Your task to perform on an android device: make emails show in primary in the gmail app Image 0: 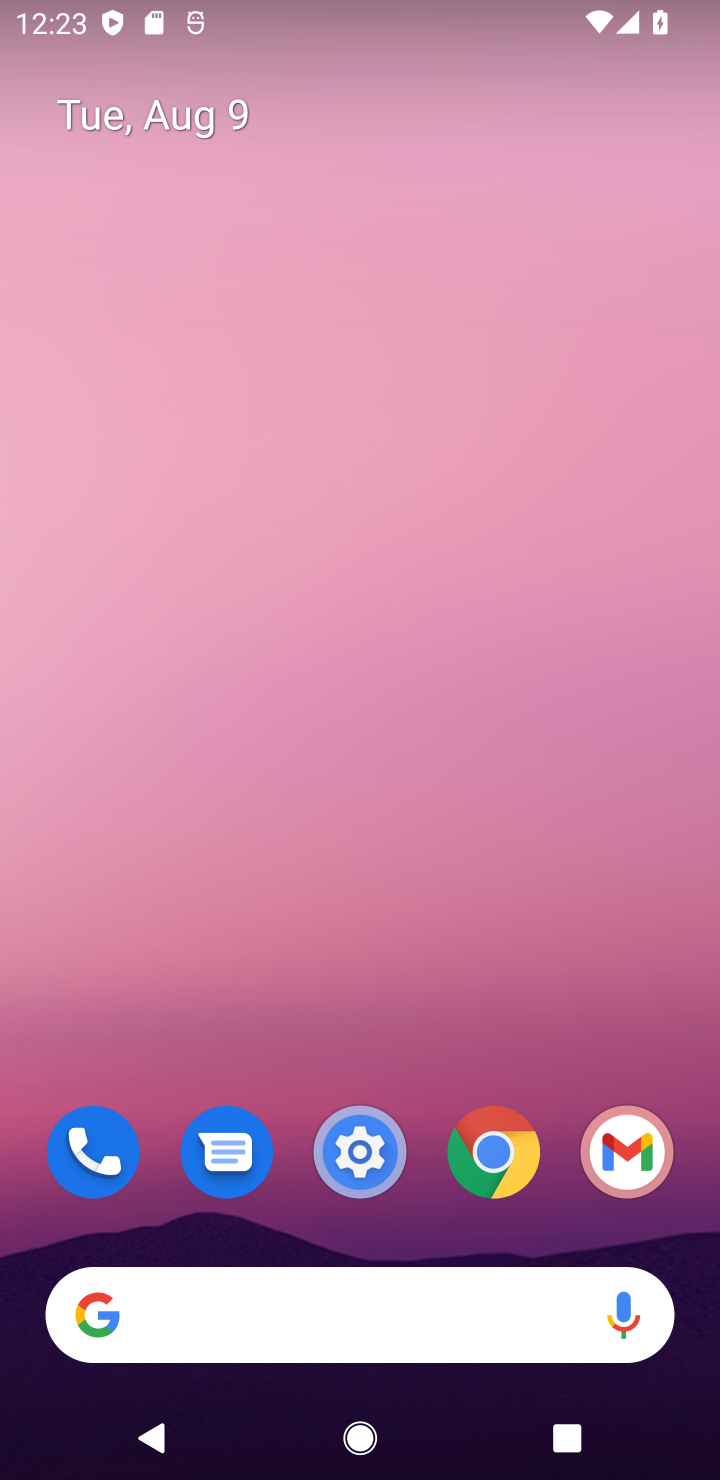
Step 0: press home button
Your task to perform on an android device: make emails show in primary in the gmail app Image 1: 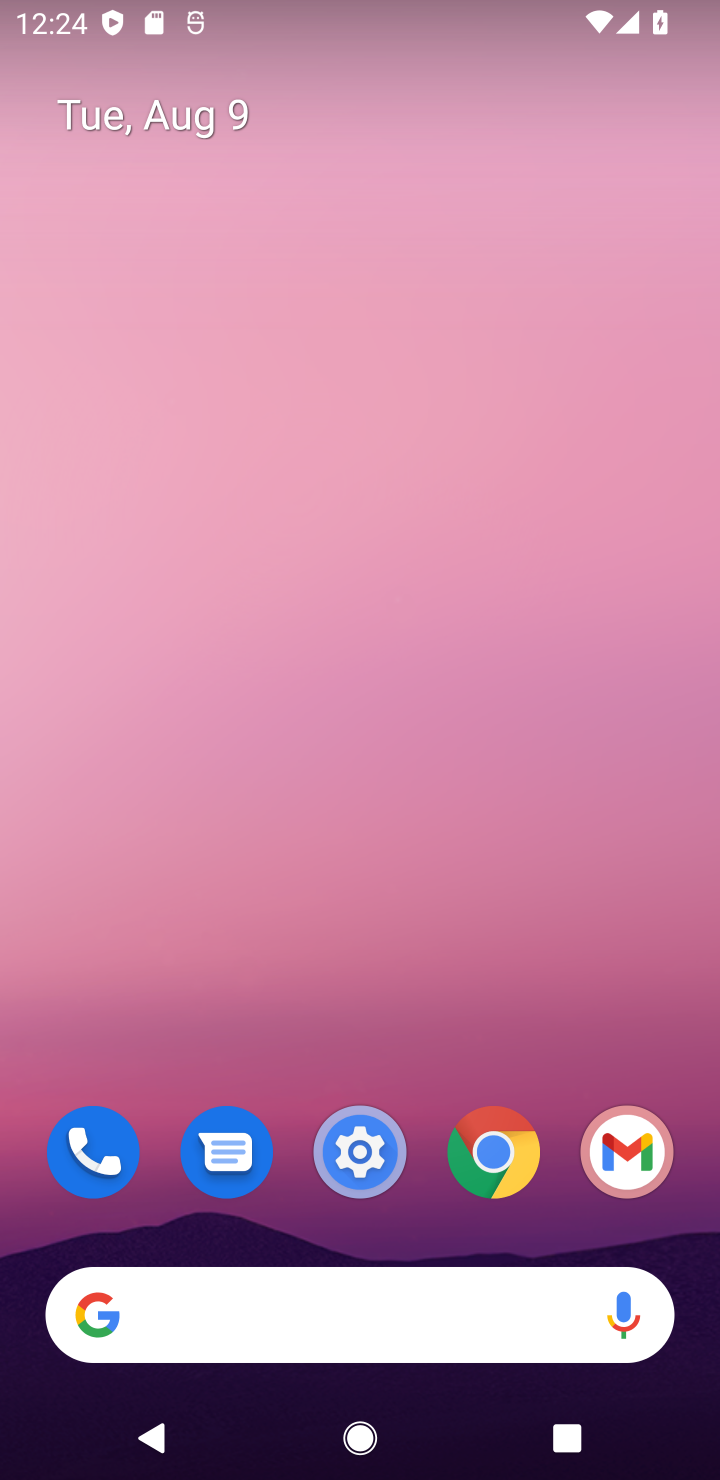
Step 1: drag from (414, 1068) to (396, 306)
Your task to perform on an android device: make emails show in primary in the gmail app Image 2: 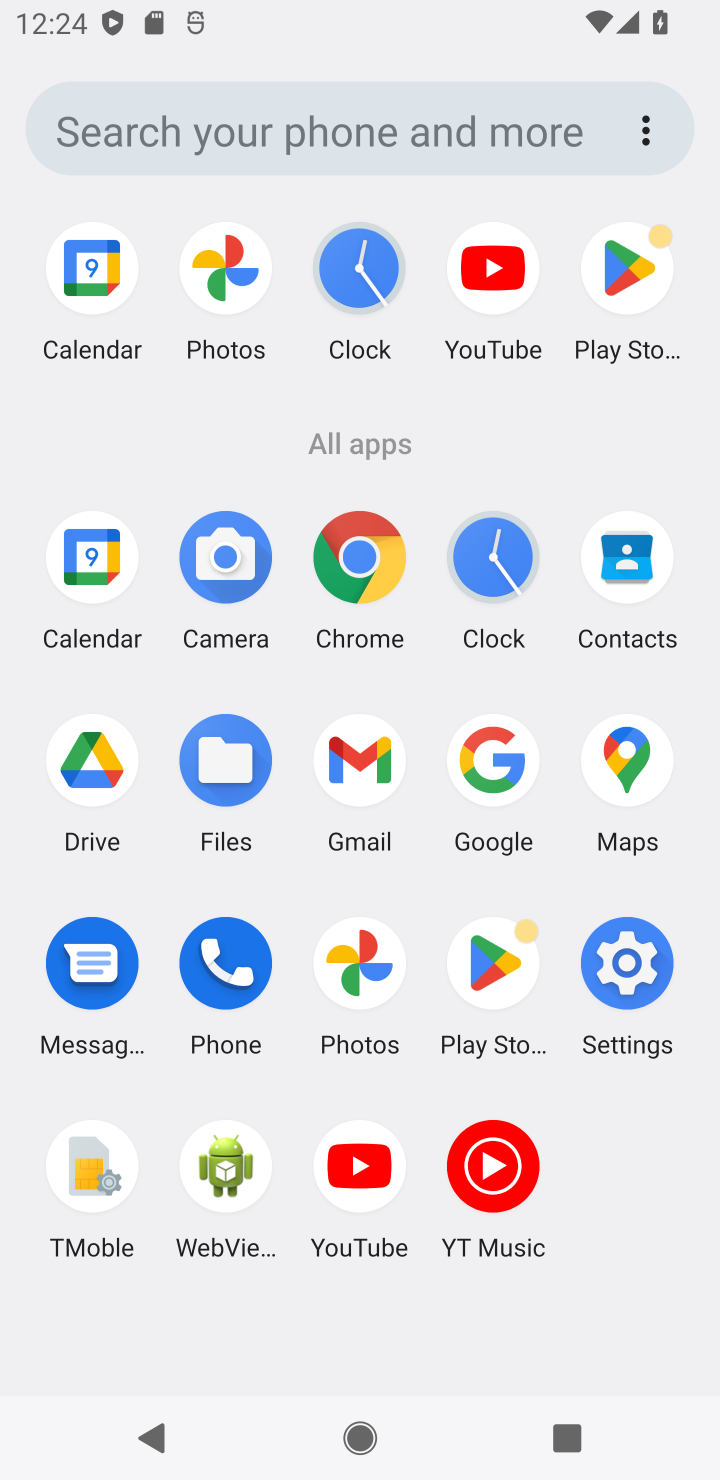
Step 2: click (367, 758)
Your task to perform on an android device: make emails show in primary in the gmail app Image 3: 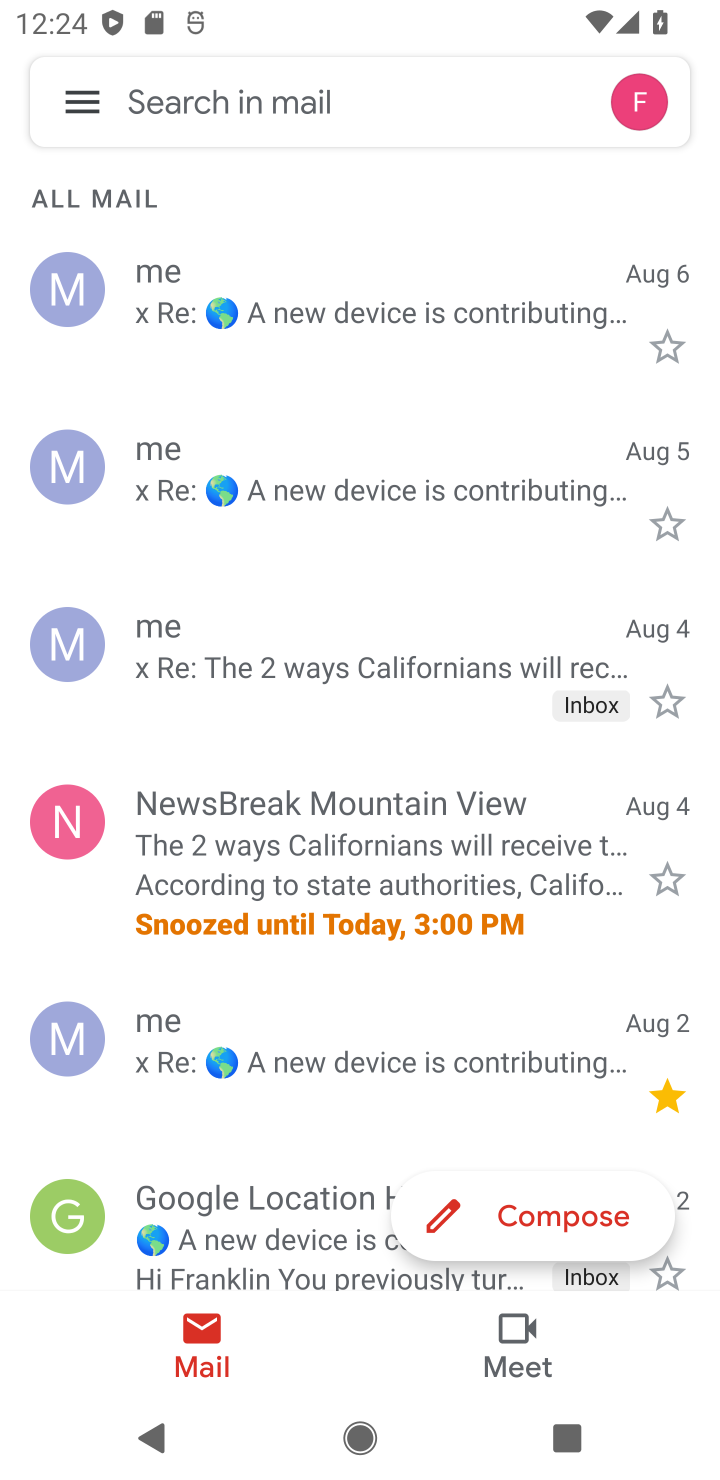
Step 3: click (70, 105)
Your task to perform on an android device: make emails show in primary in the gmail app Image 4: 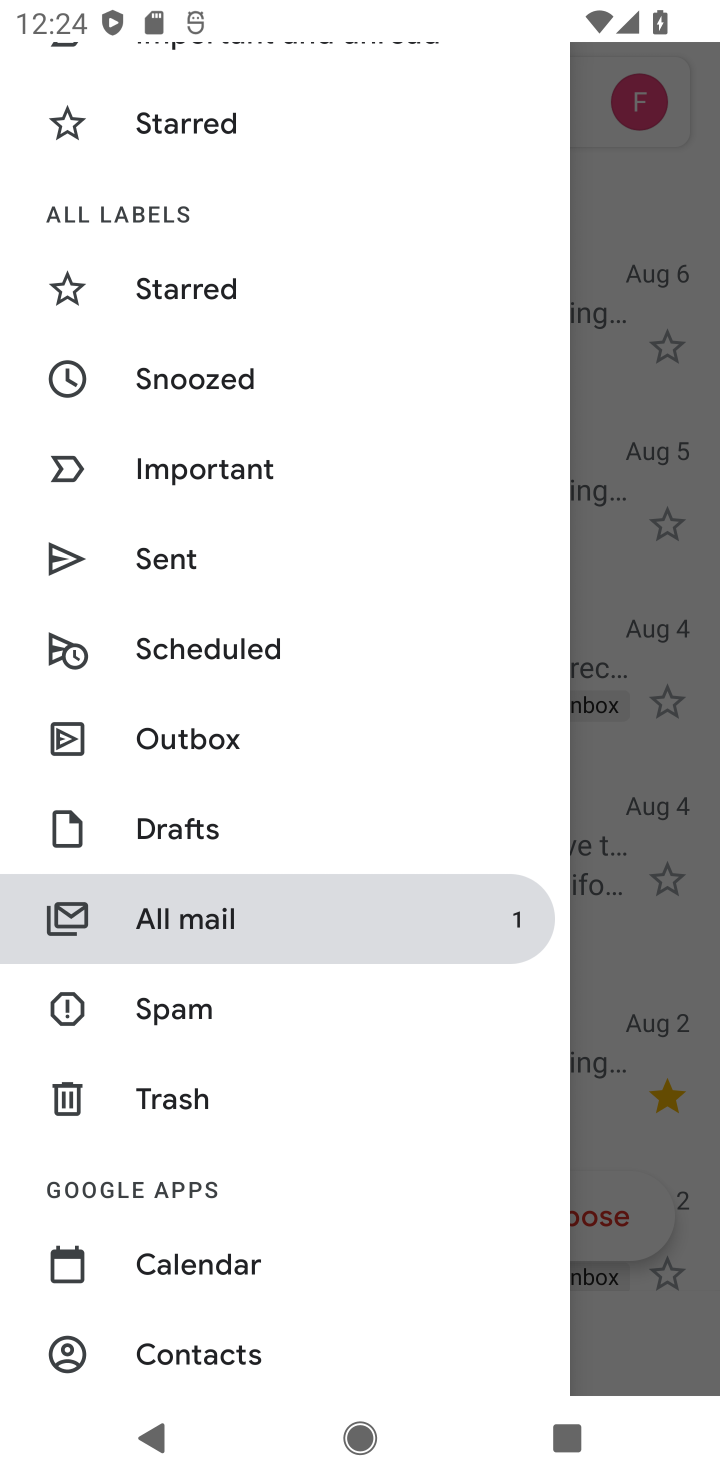
Step 4: drag from (370, 1267) to (357, 810)
Your task to perform on an android device: make emails show in primary in the gmail app Image 5: 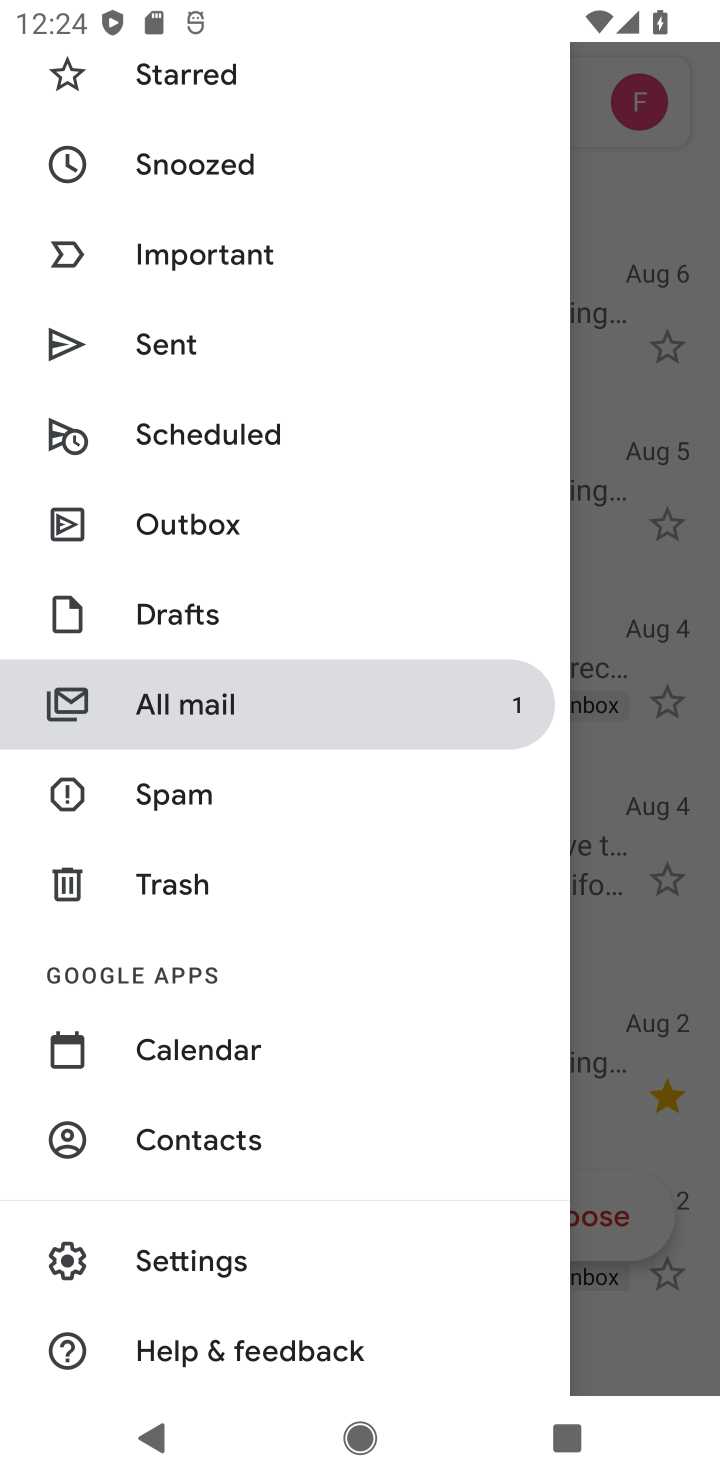
Step 5: click (218, 1262)
Your task to perform on an android device: make emails show in primary in the gmail app Image 6: 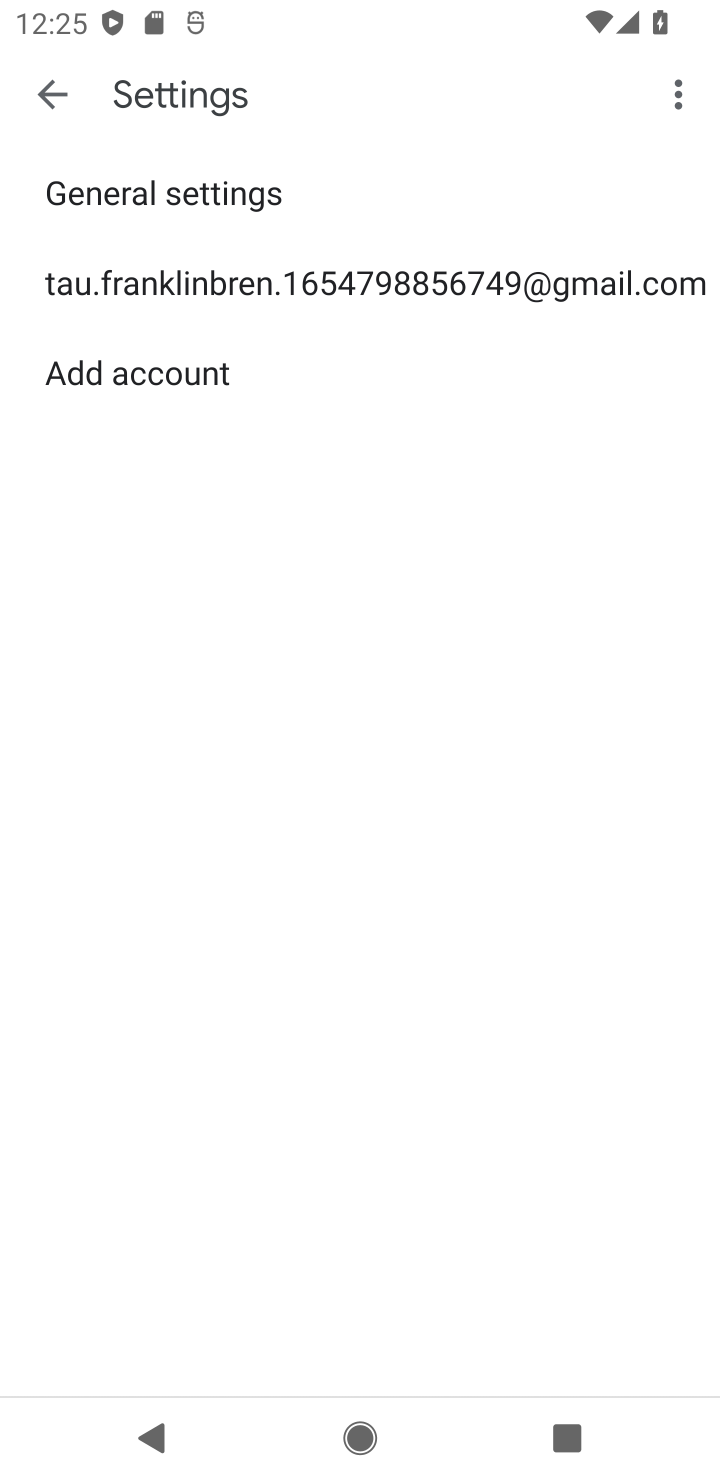
Step 6: click (226, 286)
Your task to perform on an android device: make emails show in primary in the gmail app Image 7: 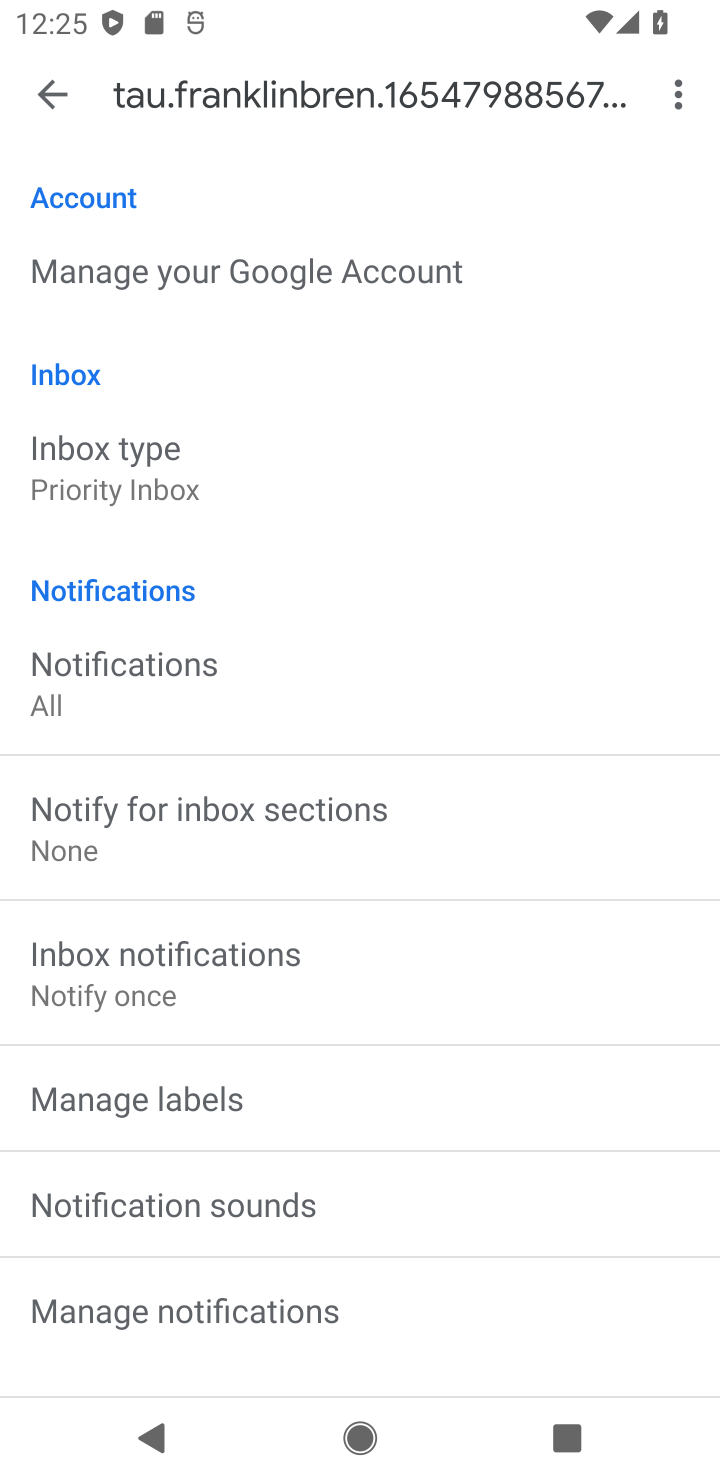
Step 7: click (166, 485)
Your task to perform on an android device: make emails show in primary in the gmail app Image 8: 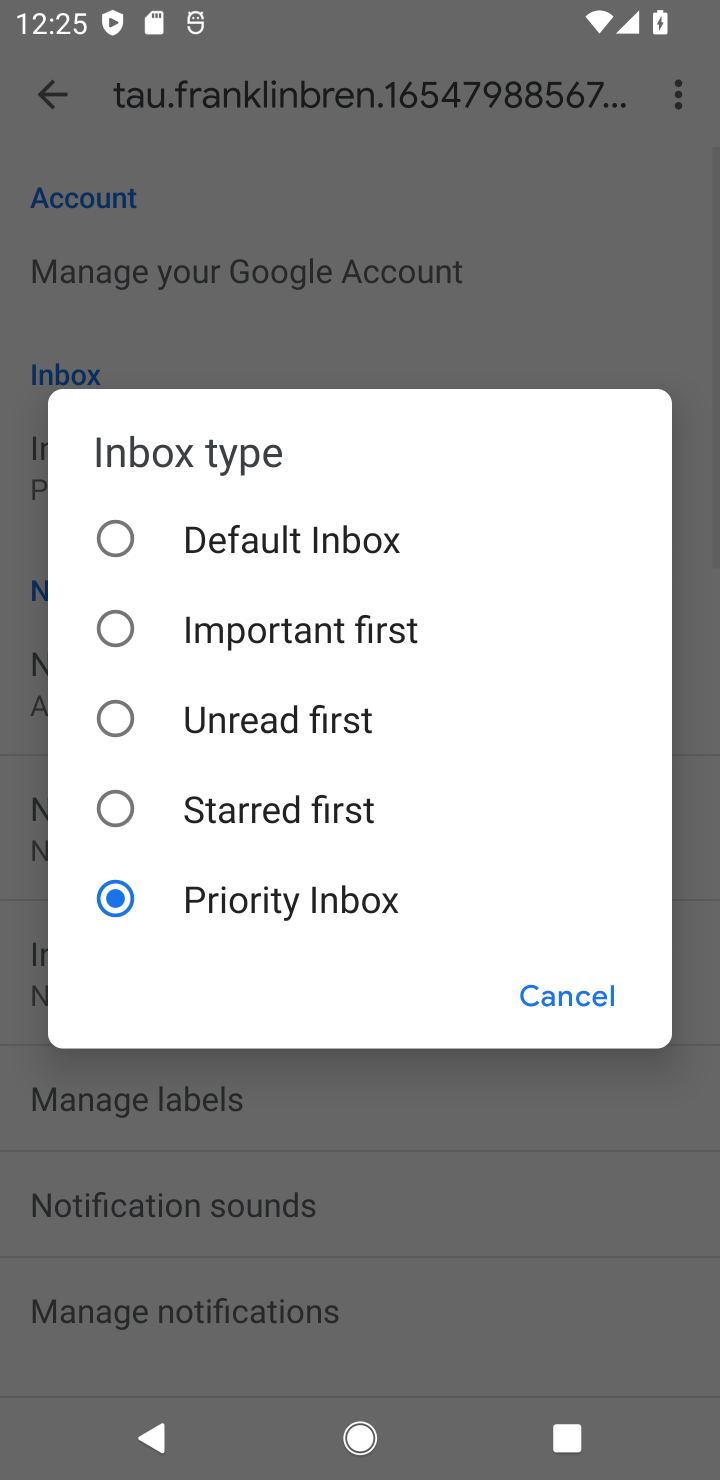
Step 8: click (206, 550)
Your task to perform on an android device: make emails show in primary in the gmail app Image 9: 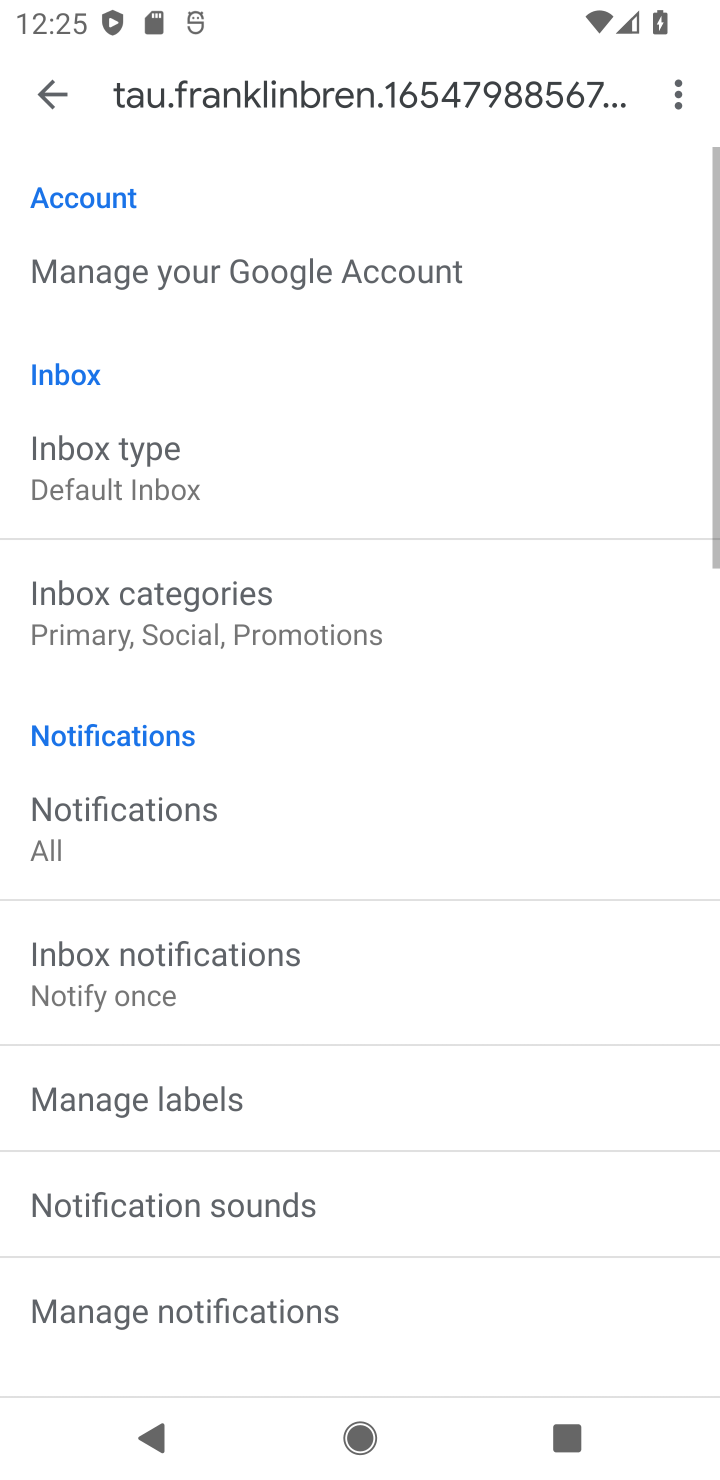
Step 9: click (166, 629)
Your task to perform on an android device: make emails show in primary in the gmail app Image 10: 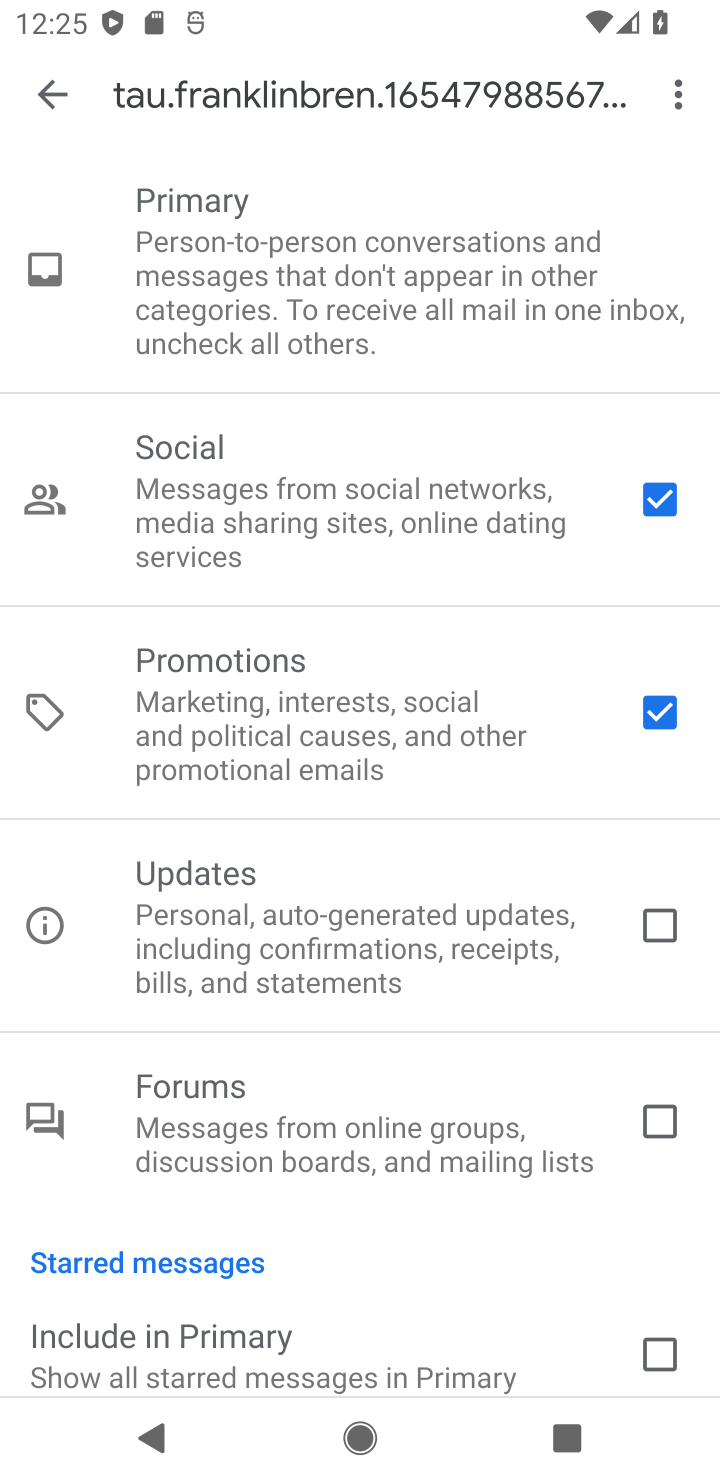
Step 10: click (658, 721)
Your task to perform on an android device: make emails show in primary in the gmail app Image 11: 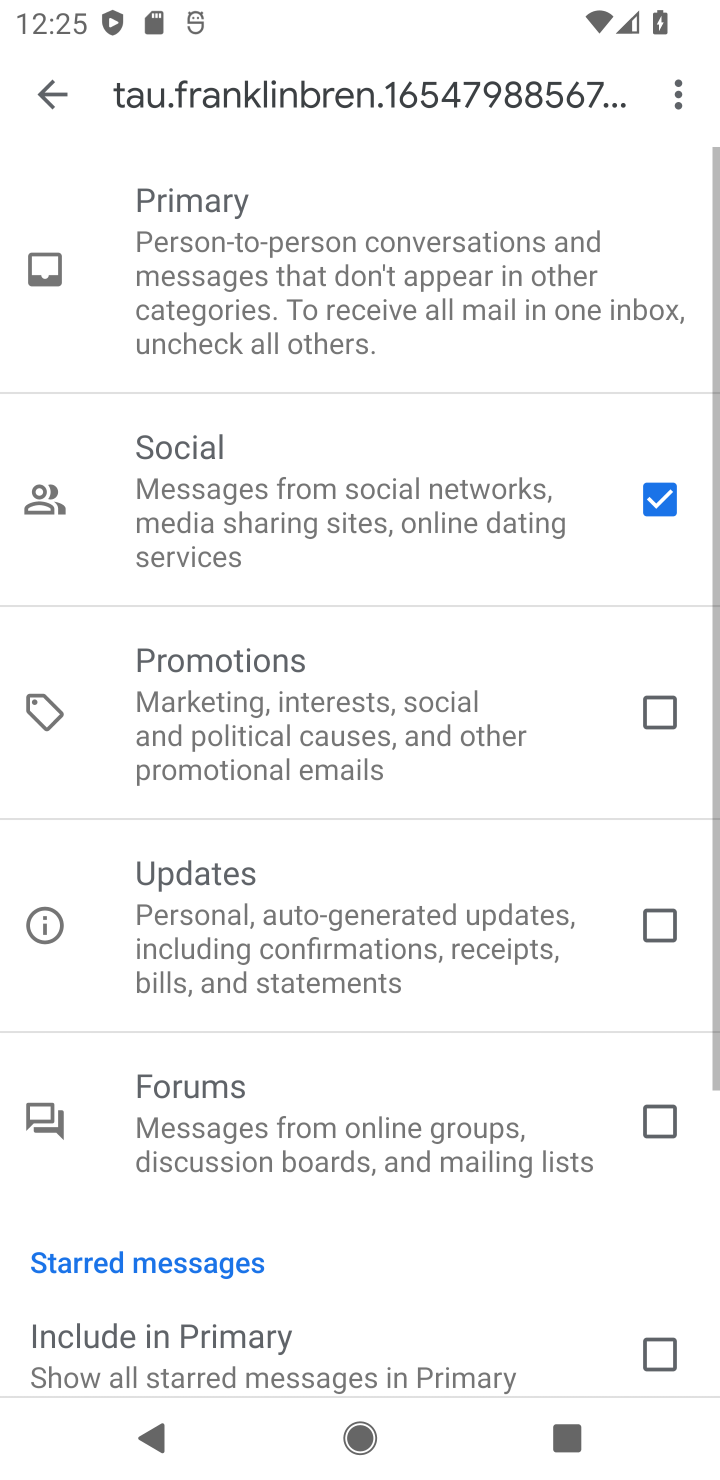
Step 11: click (662, 497)
Your task to perform on an android device: make emails show in primary in the gmail app Image 12: 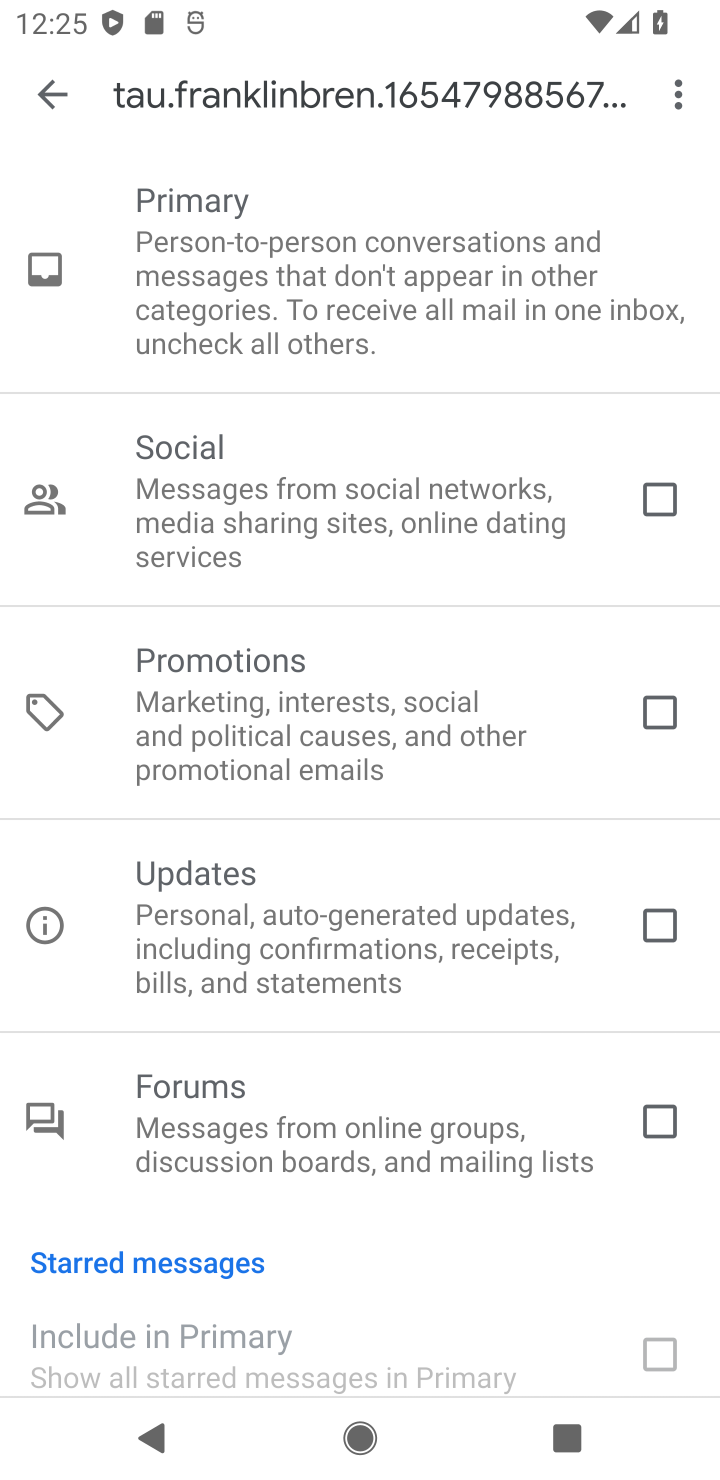
Step 12: task complete